Your task to perform on an android device: Open the web browser Image 0: 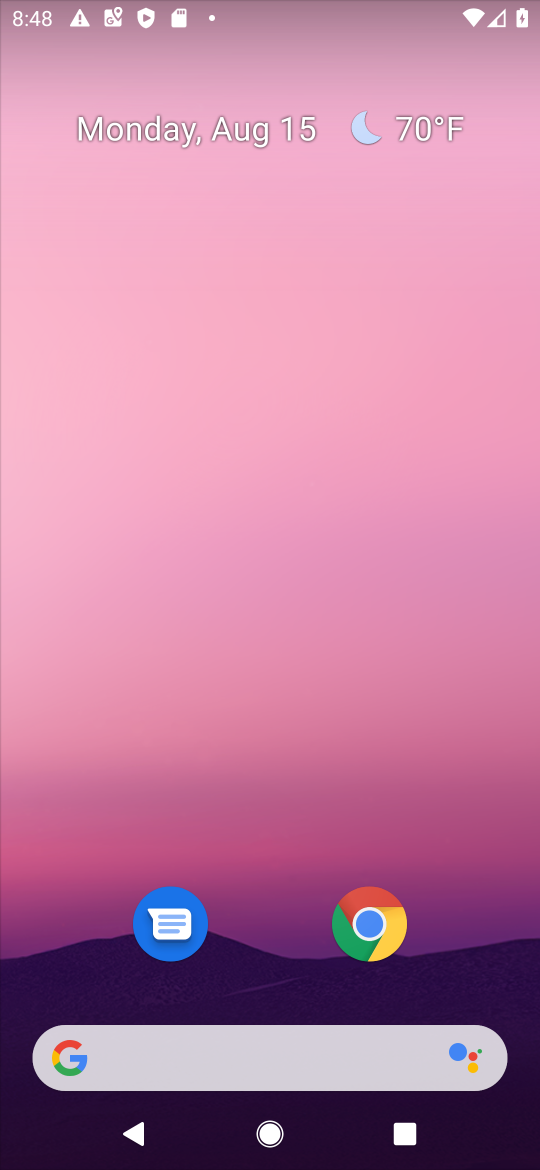
Step 0: click (368, 930)
Your task to perform on an android device: Open the web browser Image 1: 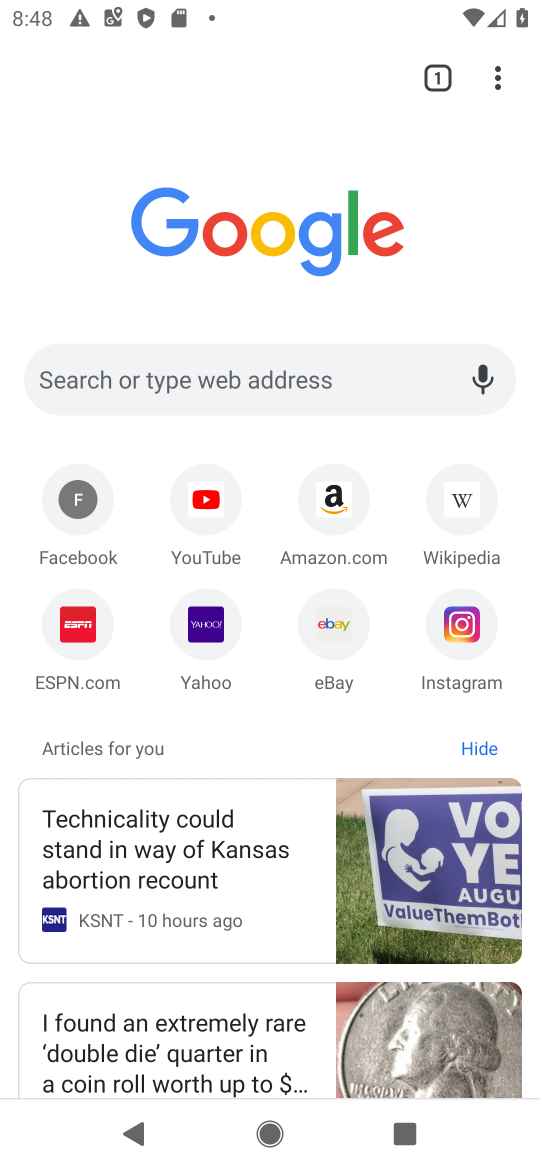
Step 1: task complete